Your task to perform on an android device: stop showing notifications on the lock screen Image 0: 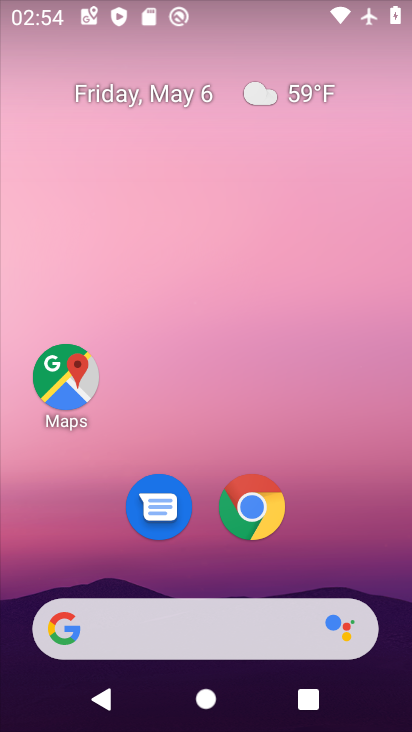
Step 0: drag from (331, 560) to (295, 89)
Your task to perform on an android device: stop showing notifications on the lock screen Image 1: 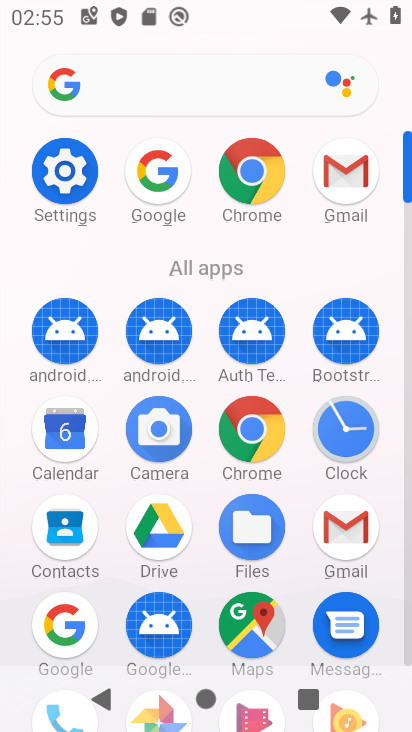
Step 1: click (68, 183)
Your task to perform on an android device: stop showing notifications on the lock screen Image 2: 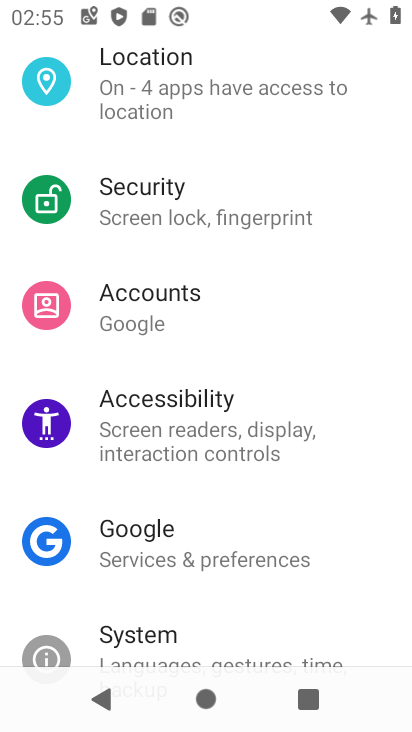
Step 2: drag from (254, 205) to (264, 532)
Your task to perform on an android device: stop showing notifications on the lock screen Image 3: 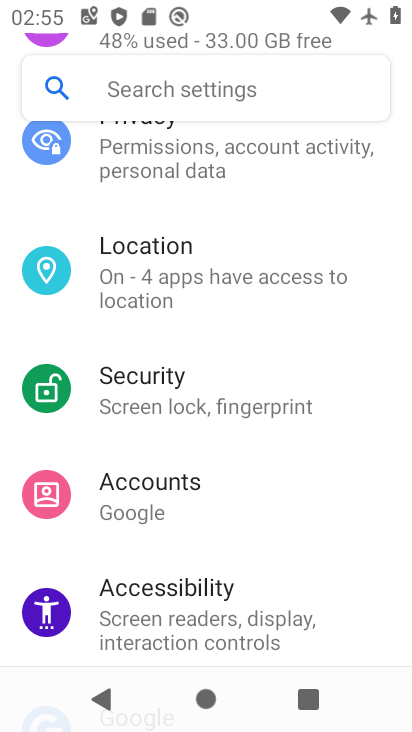
Step 3: drag from (284, 238) to (272, 547)
Your task to perform on an android device: stop showing notifications on the lock screen Image 4: 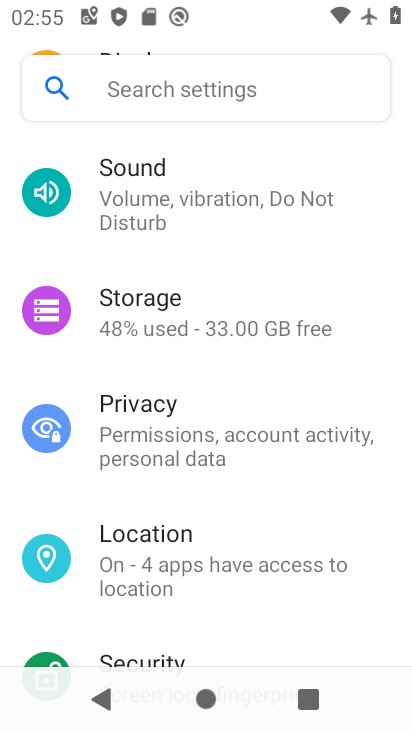
Step 4: drag from (304, 281) to (266, 610)
Your task to perform on an android device: stop showing notifications on the lock screen Image 5: 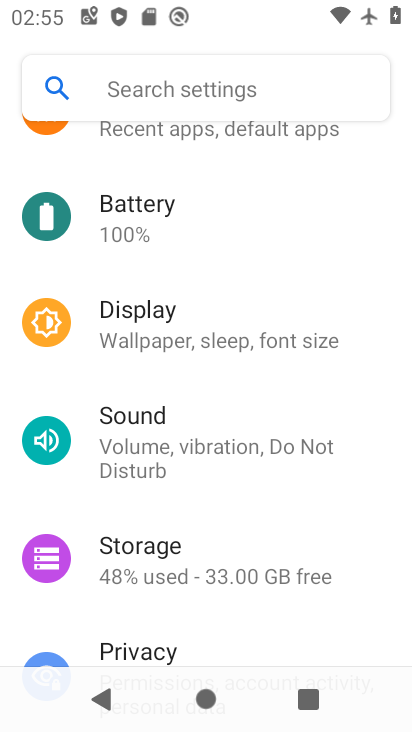
Step 5: drag from (263, 222) to (234, 645)
Your task to perform on an android device: stop showing notifications on the lock screen Image 6: 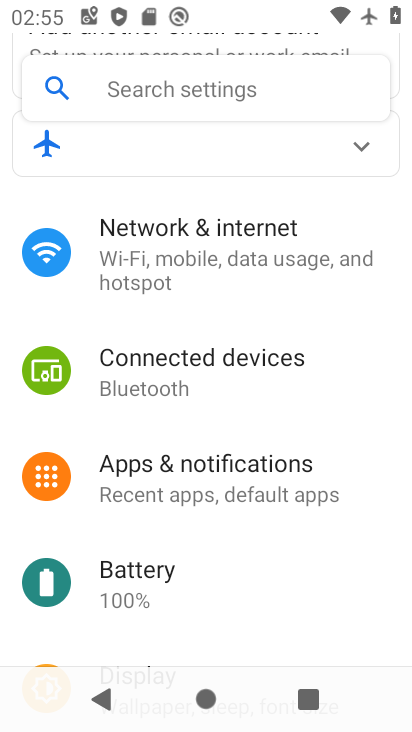
Step 6: click (234, 491)
Your task to perform on an android device: stop showing notifications on the lock screen Image 7: 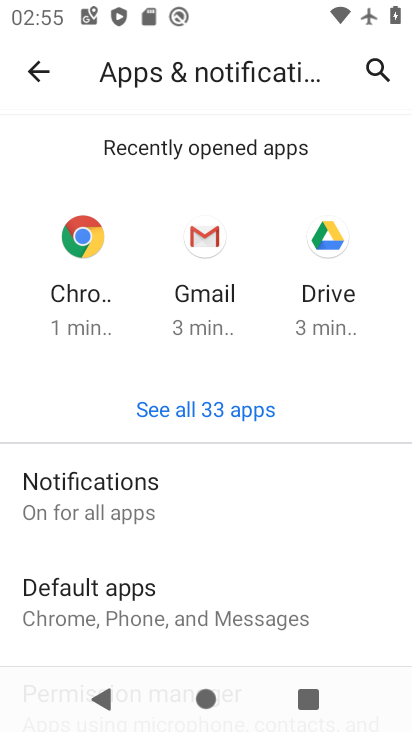
Step 7: drag from (209, 590) to (201, 273)
Your task to perform on an android device: stop showing notifications on the lock screen Image 8: 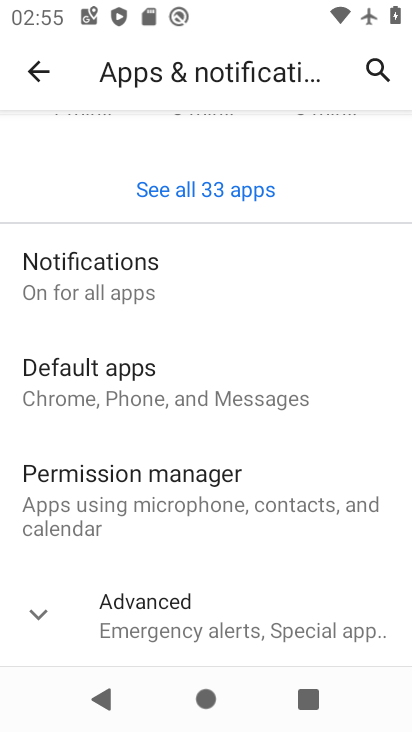
Step 8: click (41, 614)
Your task to perform on an android device: stop showing notifications on the lock screen Image 9: 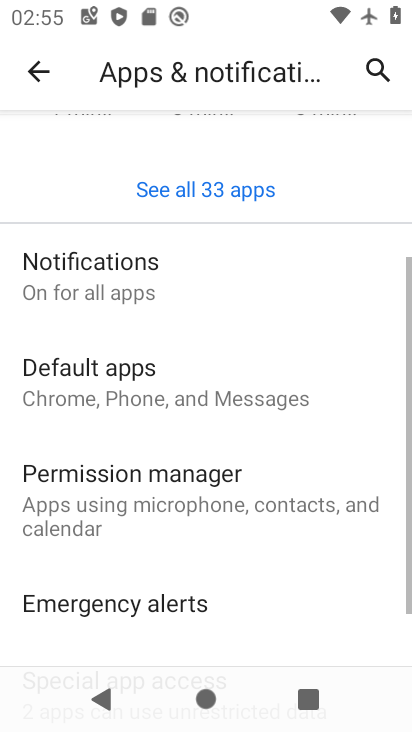
Step 9: drag from (165, 564) to (183, 225)
Your task to perform on an android device: stop showing notifications on the lock screen Image 10: 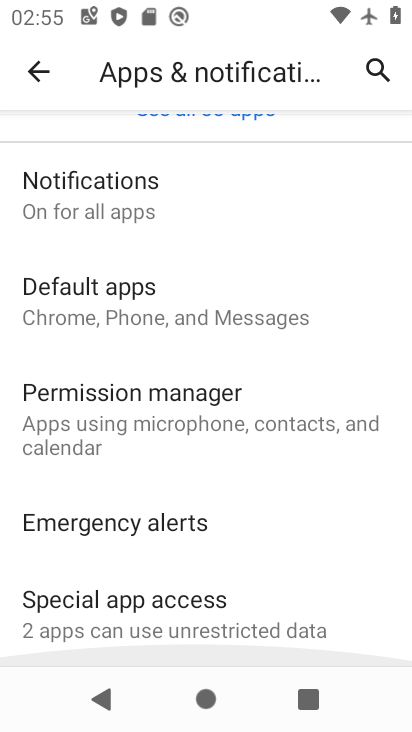
Step 10: click (183, 225)
Your task to perform on an android device: stop showing notifications on the lock screen Image 11: 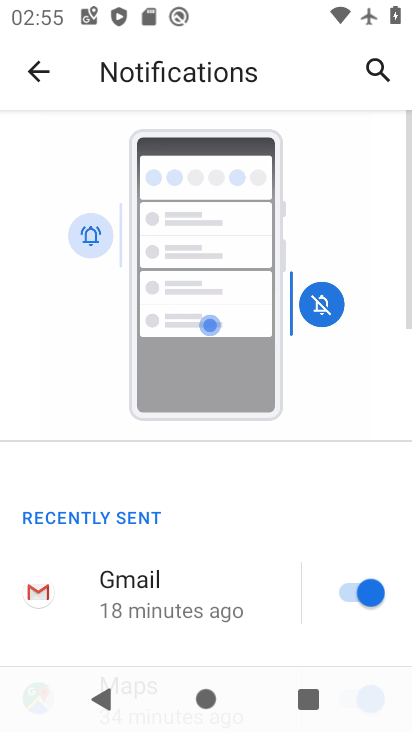
Step 11: drag from (165, 634) to (183, 230)
Your task to perform on an android device: stop showing notifications on the lock screen Image 12: 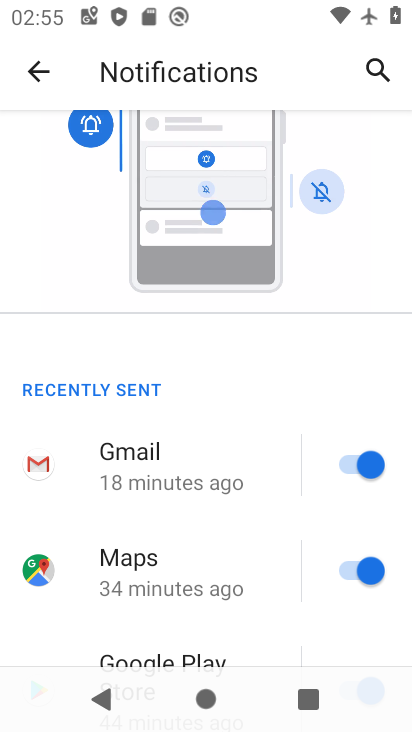
Step 12: drag from (217, 656) to (231, 241)
Your task to perform on an android device: stop showing notifications on the lock screen Image 13: 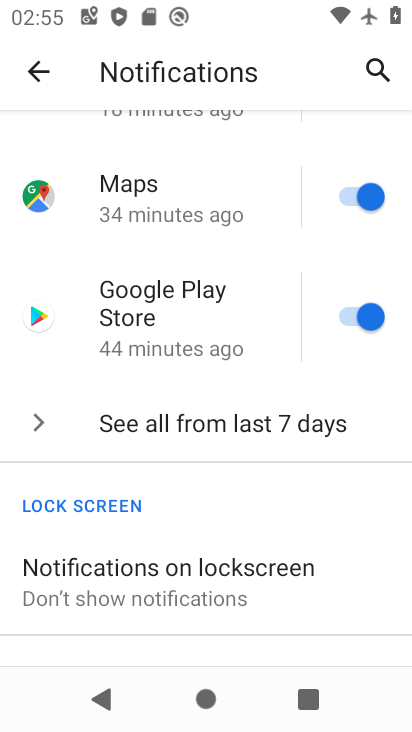
Step 13: drag from (190, 607) to (197, 296)
Your task to perform on an android device: stop showing notifications on the lock screen Image 14: 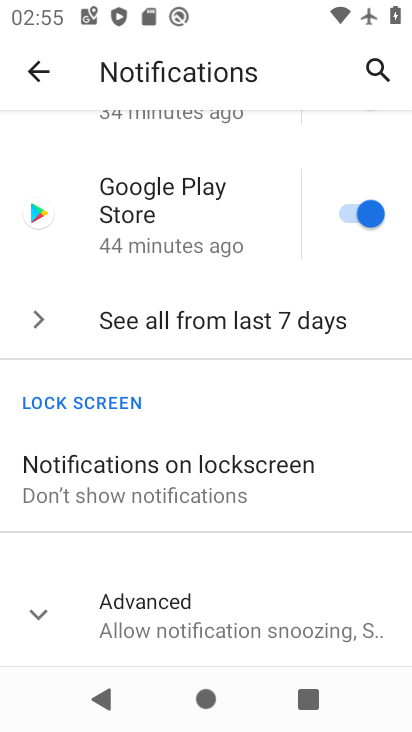
Step 14: click (138, 496)
Your task to perform on an android device: stop showing notifications on the lock screen Image 15: 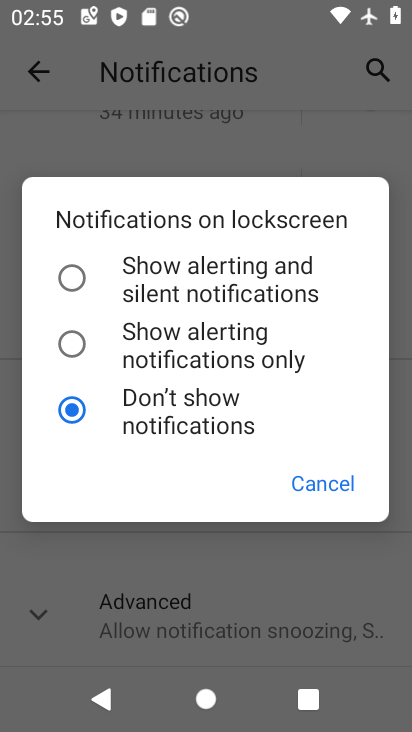
Step 15: task complete